Your task to perform on an android device: Open privacy settings Image 0: 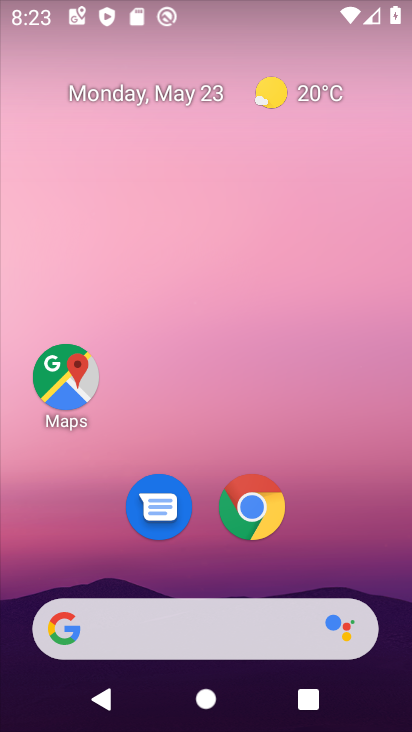
Step 0: drag from (375, 405) to (339, 1)
Your task to perform on an android device: Open privacy settings Image 1: 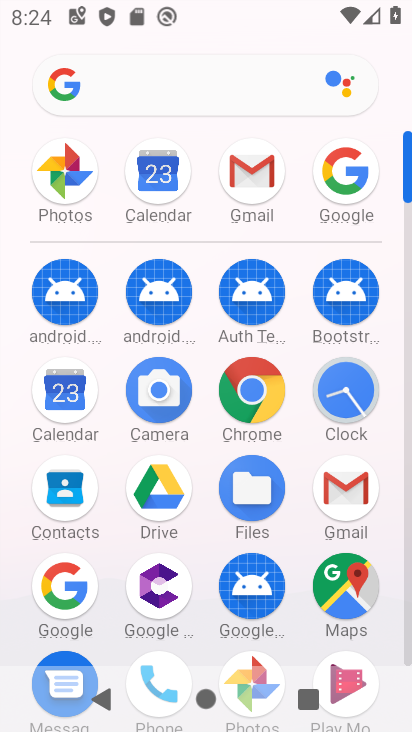
Step 1: click (410, 535)
Your task to perform on an android device: Open privacy settings Image 2: 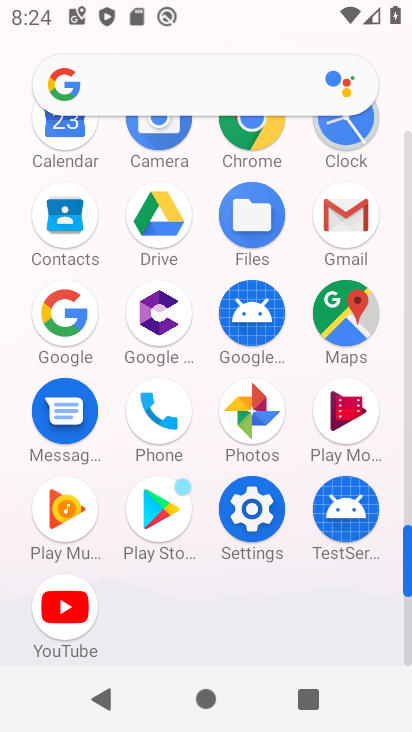
Step 2: click (247, 515)
Your task to perform on an android device: Open privacy settings Image 3: 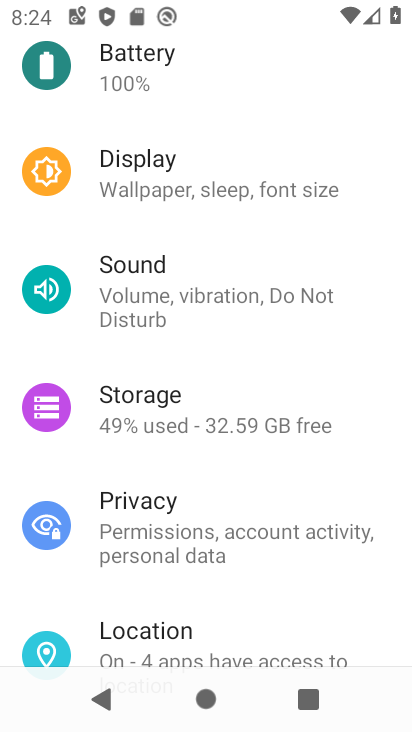
Step 3: click (140, 548)
Your task to perform on an android device: Open privacy settings Image 4: 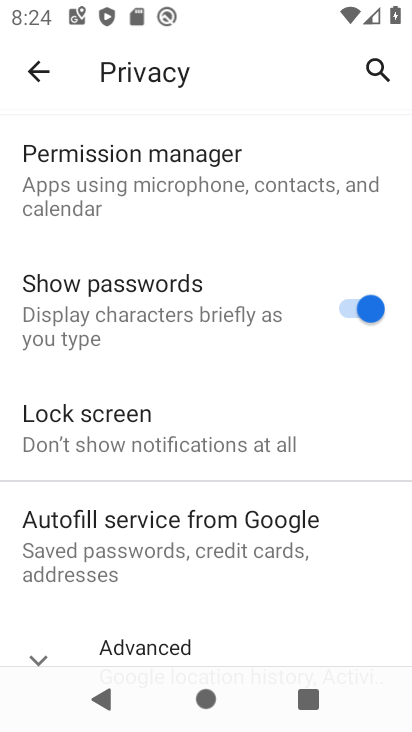
Step 4: task complete